Your task to perform on an android device: open app "Cash App" (install if not already installed) Image 0: 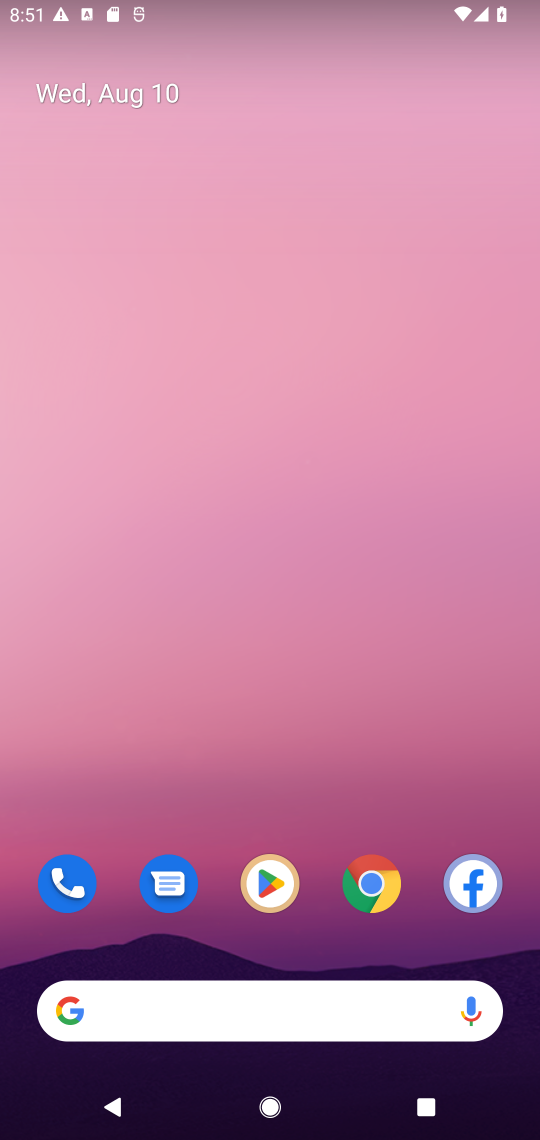
Step 0: drag from (309, 392) to (313, 177)
Your task to perform on an android device: open app "Cash App" (install if not already installed) Image 1: 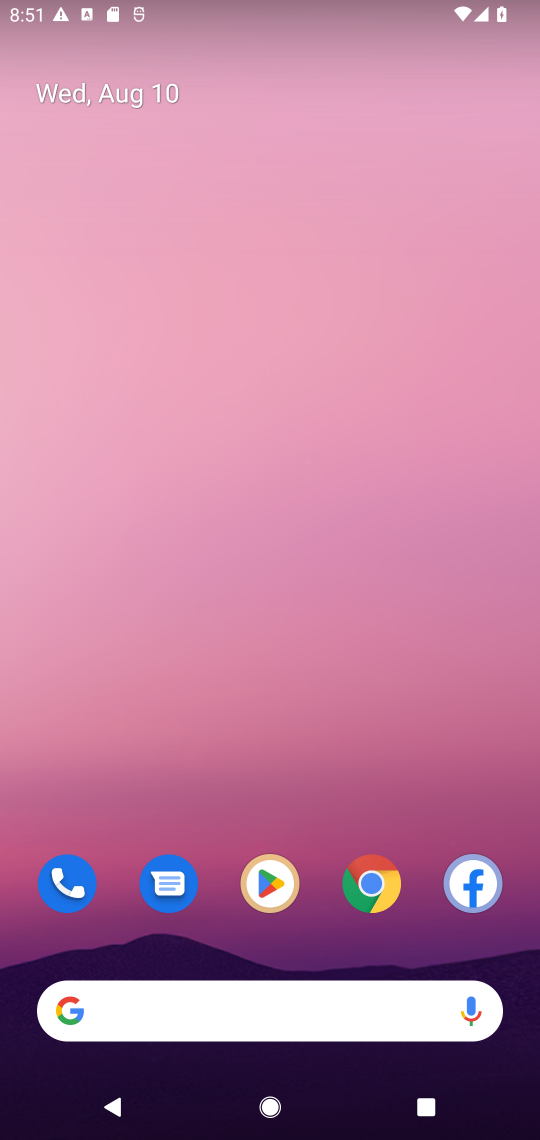
Step 1: drag from (302, 771) to (302, 40)
Your task to perform on an android device: open app "Cash App" (install if not already installed) Image 2: 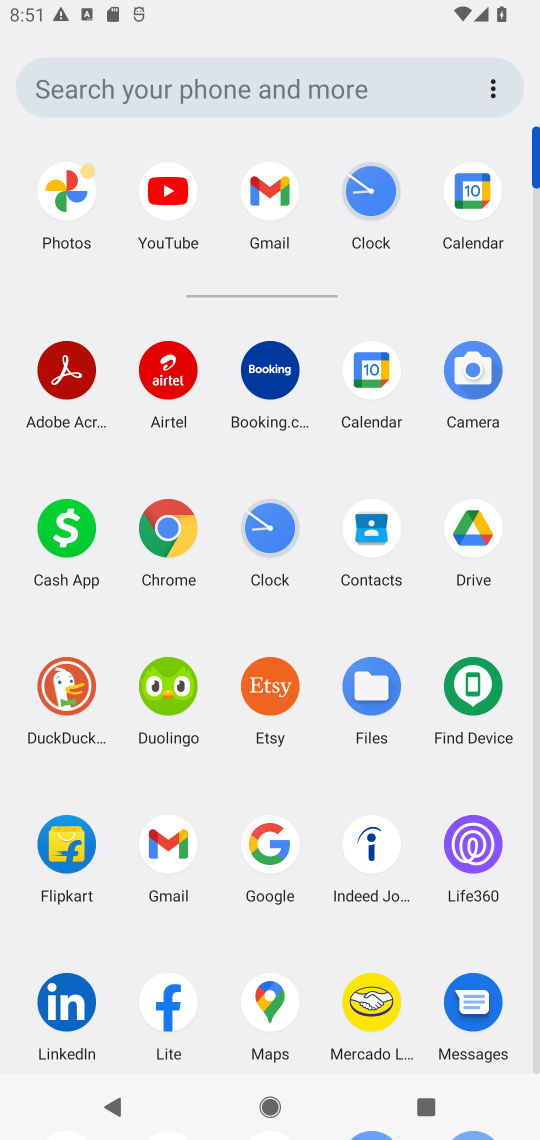
Step 2: drag from (207, 884) to (219, 366)
Your task to perform on an android device: open app "Cash App" (install if not already installed) Image 3: 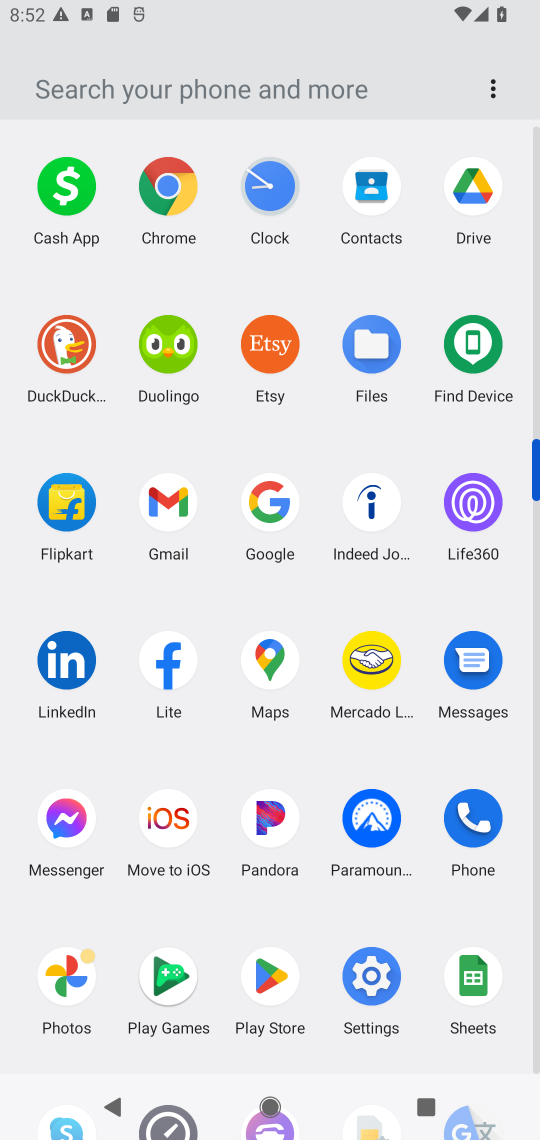
Step 3: click (271, 977)
Your task to perform on an android device: open app "Cash App" (install if not already installed) Image 4: 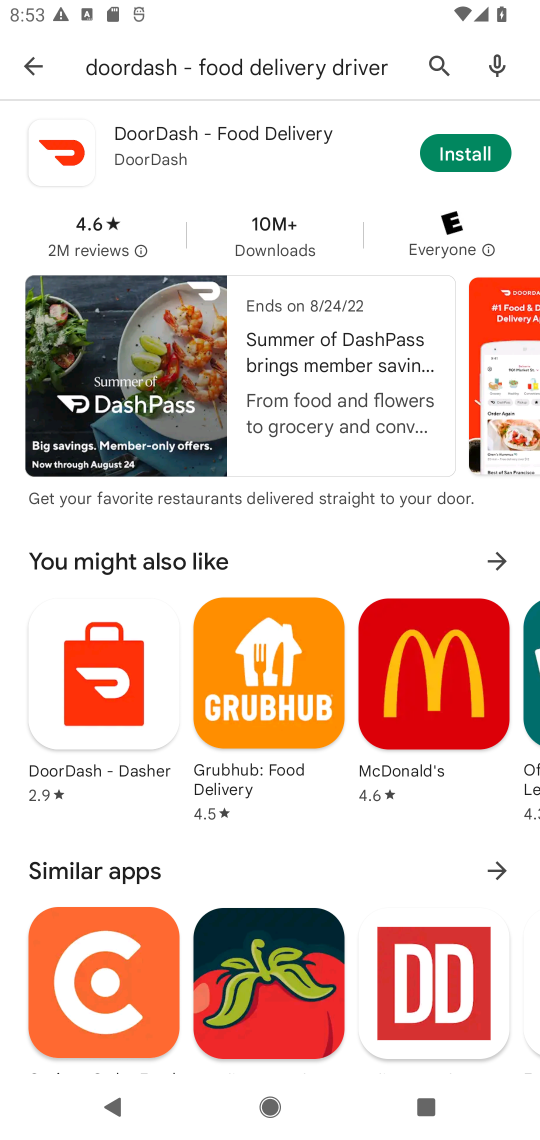
Step 4: type "Cash App"
Your task to perform on an android device: open app "Cash App" (install if not already installed) Image 5: 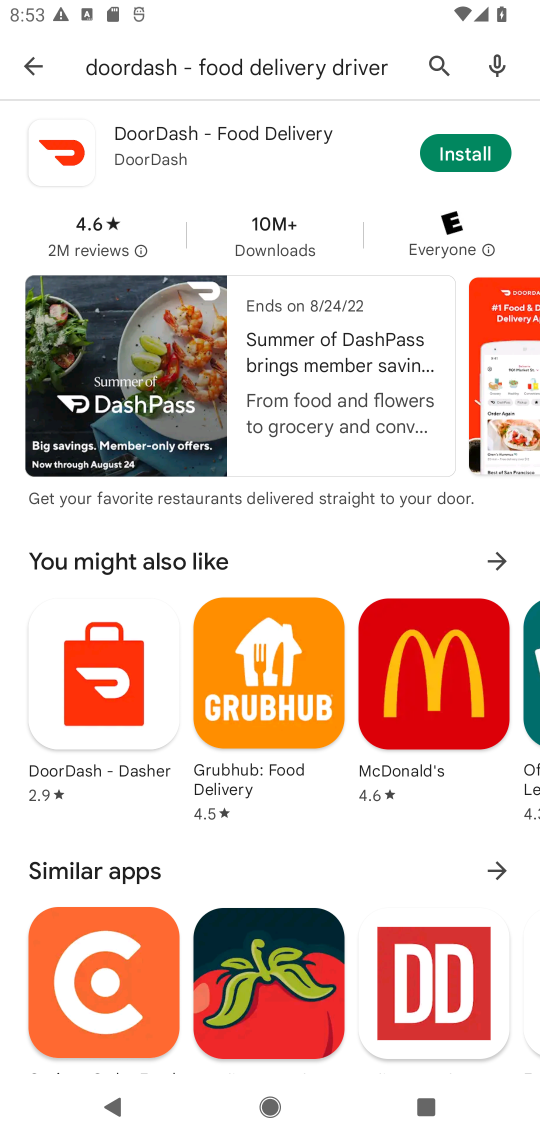
Step 5: click (433, 56)
Your task to perform on an android device: open app "Cash App" (install if not already installed) Image 6: 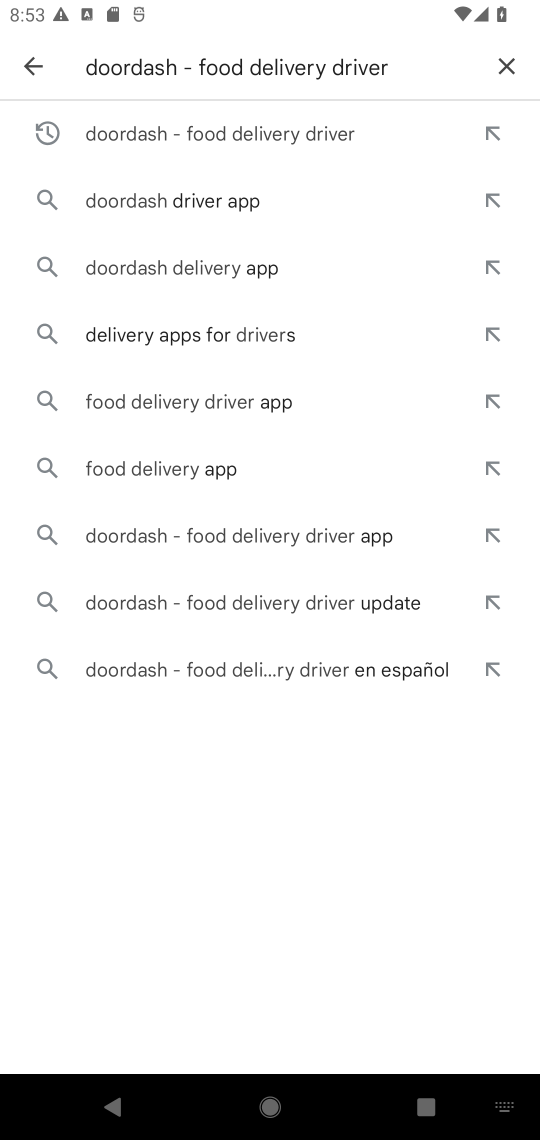
Step 6: click (502, 54)
Your task to perform on an android device: open app "Cash App" (install if not already installed) Image 7: 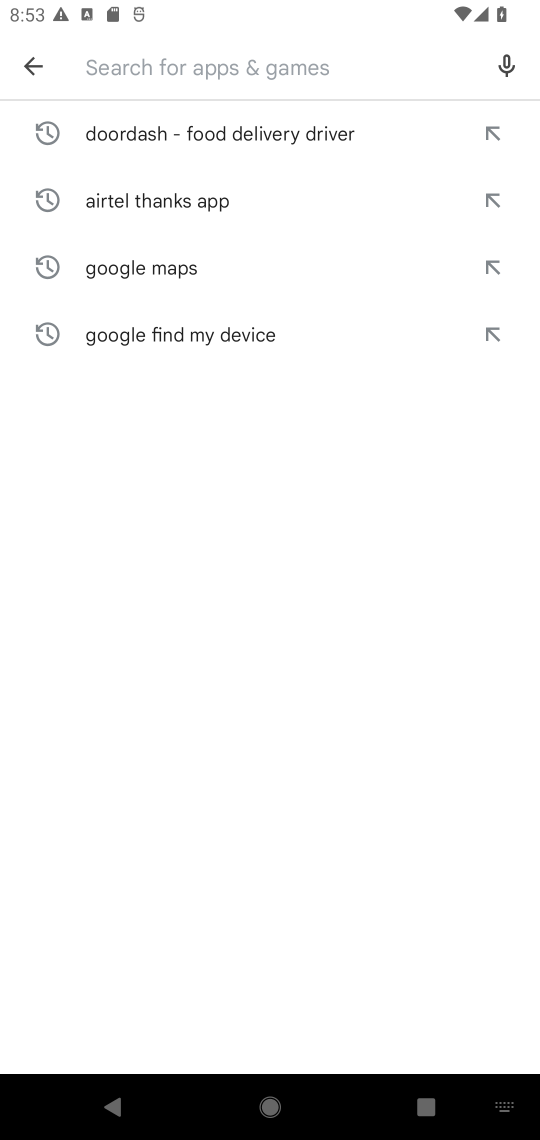
Step 7: type "Cash App"
Your task to perform on an android device: open app "Cash App" (install if not already installed) Image 8: 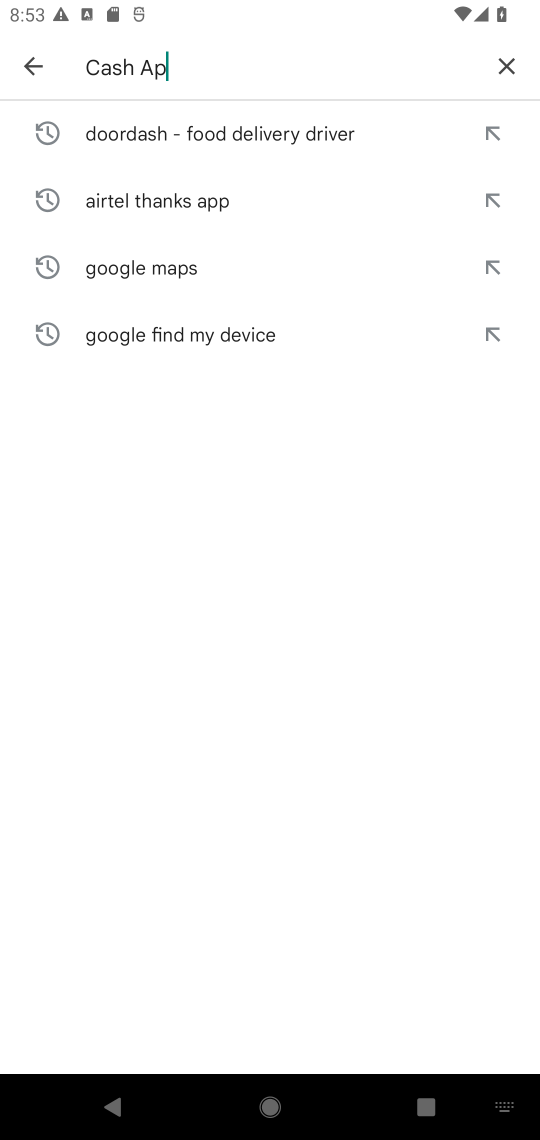
Step 8: type ""
Your task to perform on an android device: open app "Cash App" (install if not already installed) Image 9: 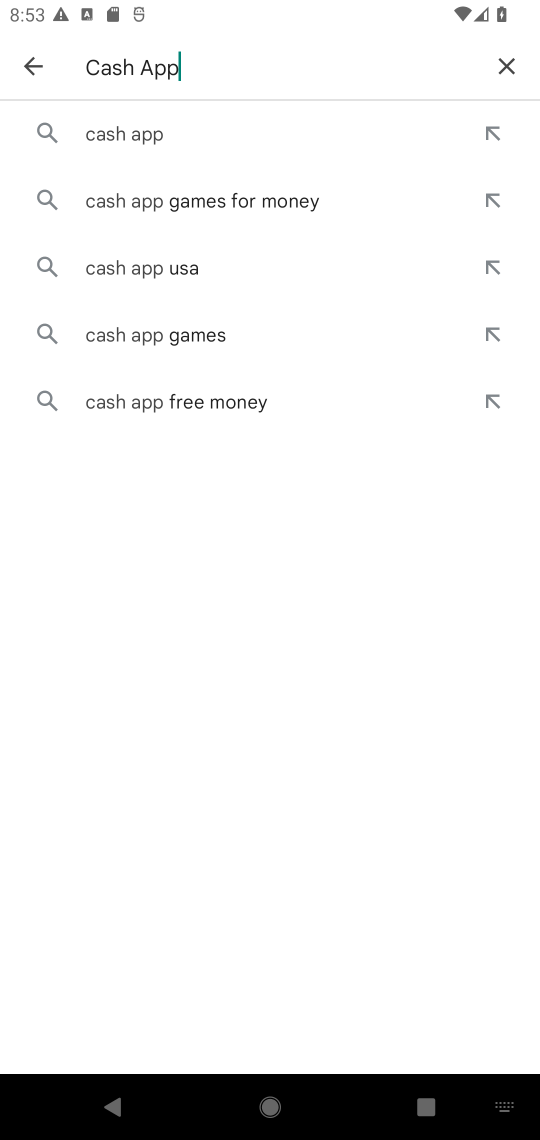
Step 9: click (120, 123)
Your task to perform on an android device: open app "Cash App" (install if not already installed) Image 10: 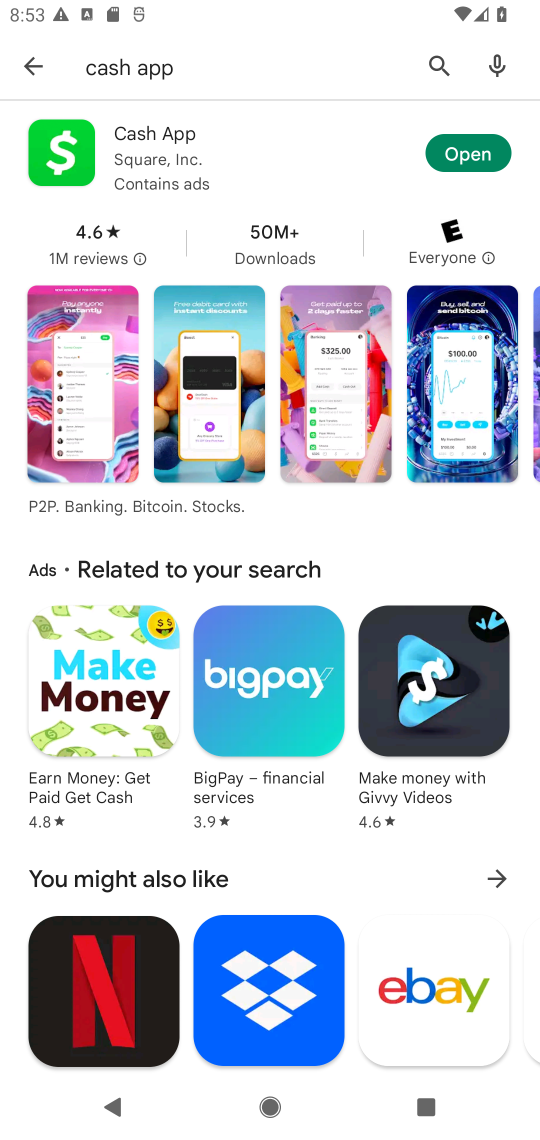
Step 10: click (452, 153)
Your task to perform on an android device: open app "Cash App" (install if not already installed) Image 11: 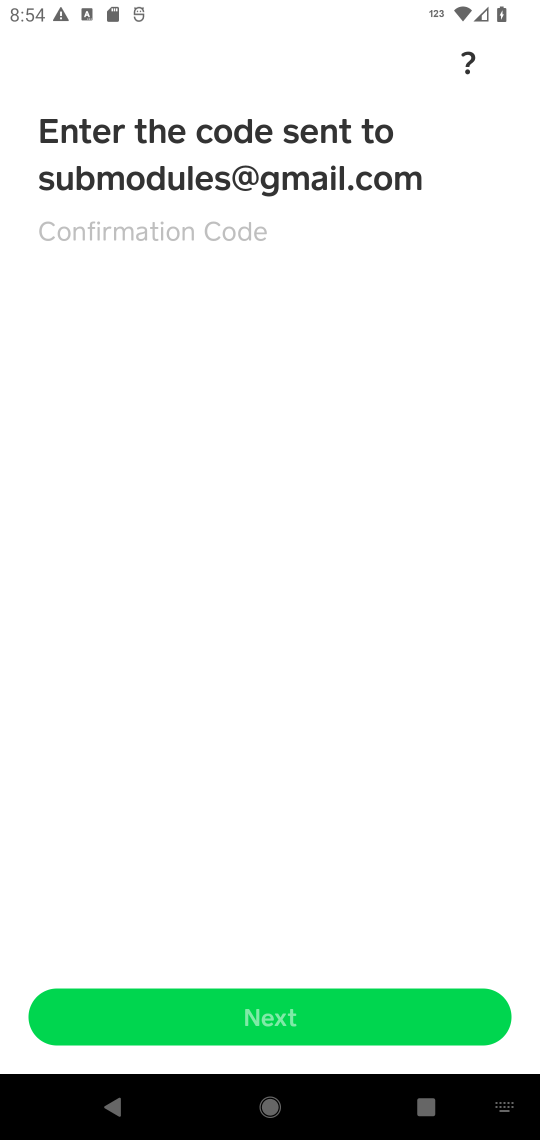
Step 11: task complete